Your task to perform on an android device: open a bookmark in the chrome app Image 0: 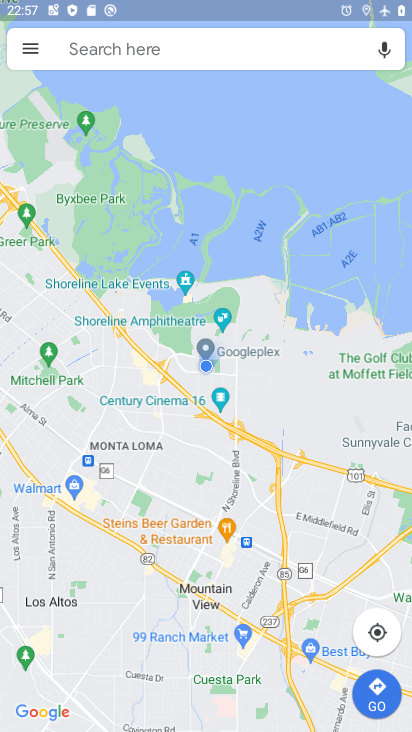
Step 0: press home button
Your task to perform on an android device: open a bookmark in the chrome app Image 1: 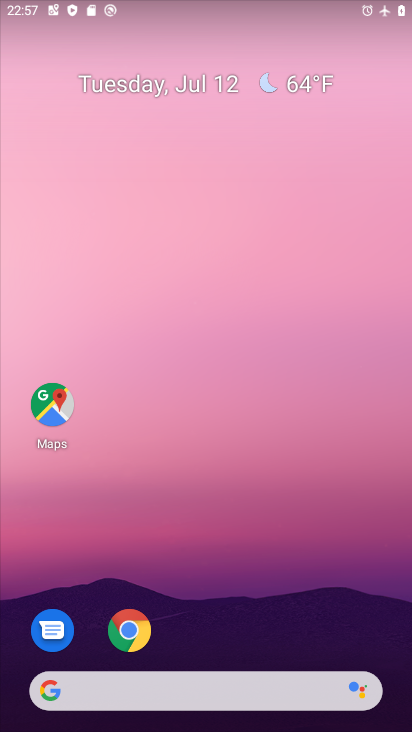
Step 1: drag from (185, 653) to (411, 259)
Your task to perform on an android device: open a bookmark in the chrome app Image 2: 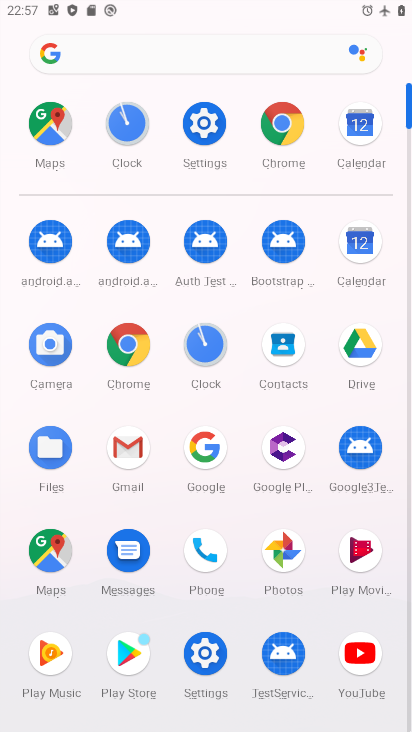
Step 2: click (275, 126)
Your task to perform on an android device: open a bookmark in the chrome app Image 3: 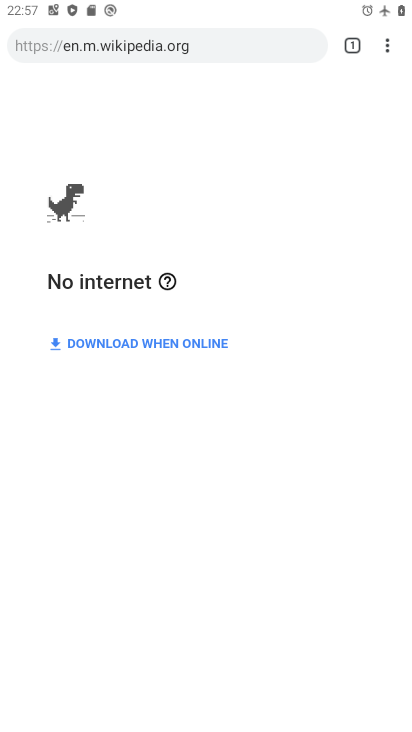
Step 3: click (390, 38)
Your task to perform on an android device: open a bookmark in the chrome app Image 4: 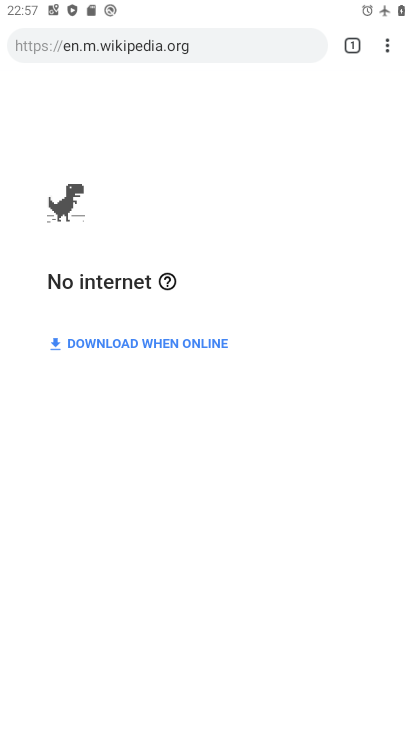
Step 4: task complete